Your task to perform on an android device: toggle show notifications on the lock screen Image 0: 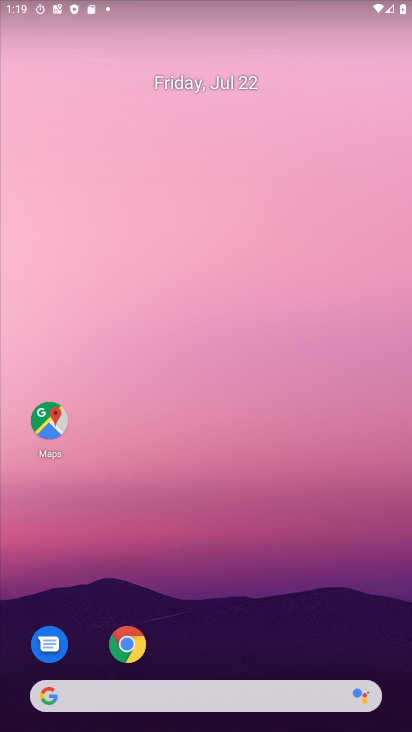
Step 0: drag from (211, 706) to (240, 90)
Your task to perform on an android device: toggle show notifications on the lock screen Image 1: 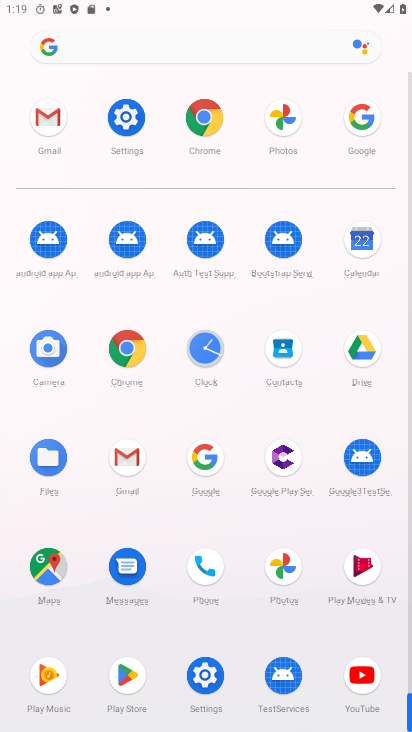
Step 1: click (133, 120)
Your task to perform on an android device: toggle show notifications on the lock screen Image 2: 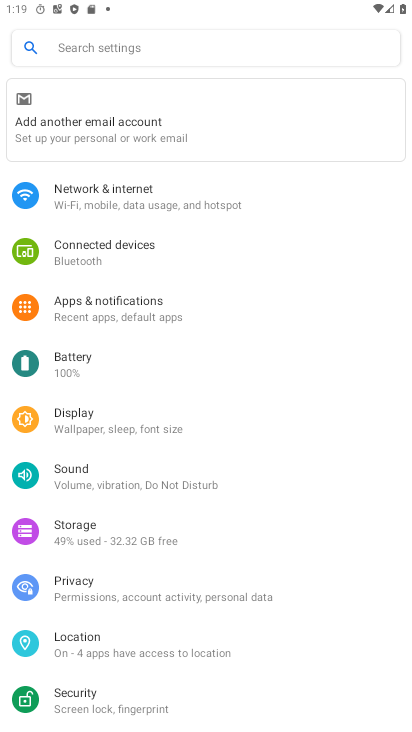
Step 2: click (175, 301)
Your task to perform on an android device: toggle show notifications on the lock screen Image 3: 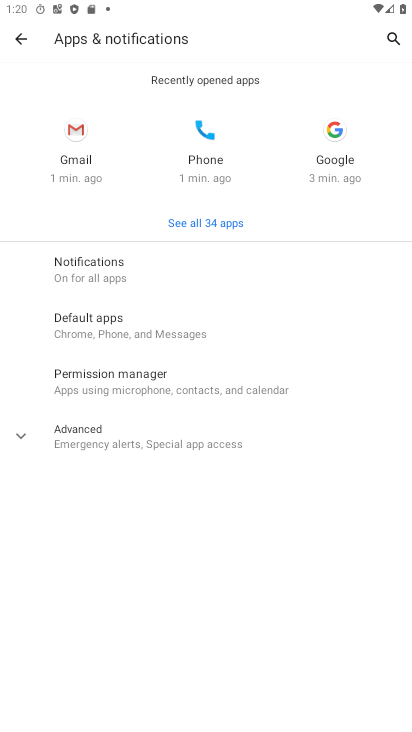
Step 3: click (151, 282)
Your task to perform on an android device: toggle show notifications on the lock screen Image 4: 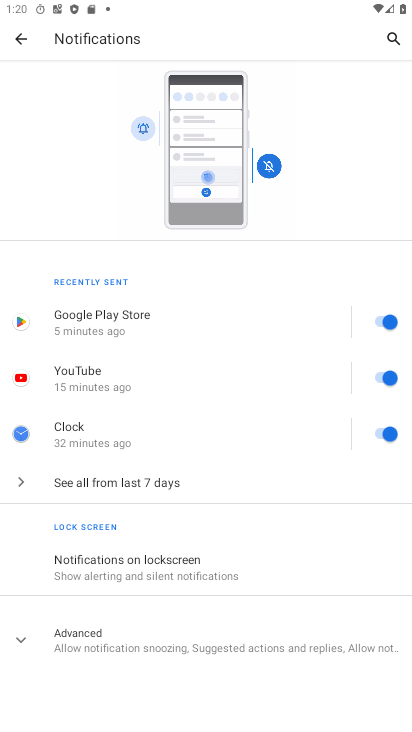
Step 4: click (139, 560)
Your task to perform on an android device: toggle show notifications on the lock screen Image 5: 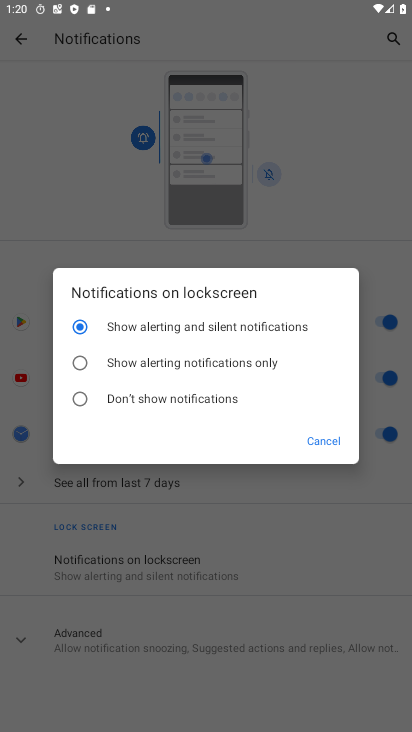
Step 5: click (89, 394)
Your task to perform on an android device: toggle show notifications on the lock screen Image 6: 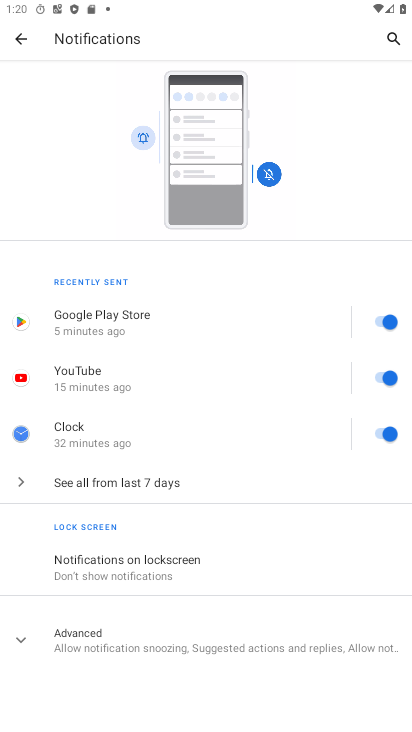
Step 6: task complete